Your task to perform on an android device: How much does a 3 bedroom apartment rent for in New York? Image 0: 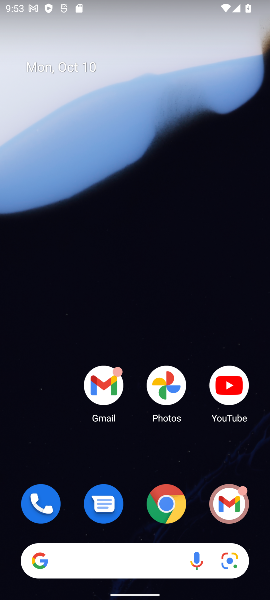
Step 0: click (165, 503)
Your task to perform on an android device: How much does a 3 bedroom apartment rent for in New York? Image 1: 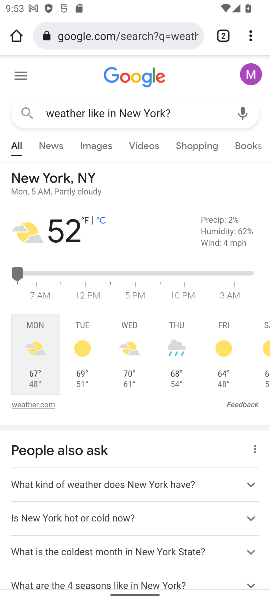
Step 1: click (97, 23)
Your task to perform on an android device: How much does a 3 bedroom apartment rent for in New York? Image 2: 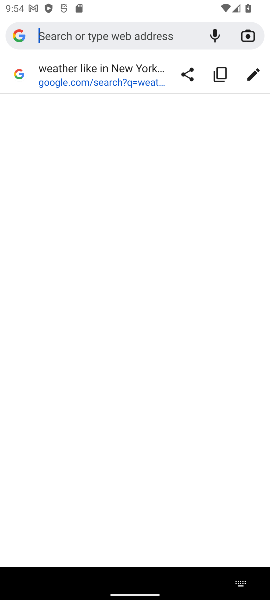
Step 2: type "How much does a 3 bedroom apartment rent for in New York?"
Your task to perform on an android device: How much does a 3 bedroom apartment rent for in New York? Image 3: 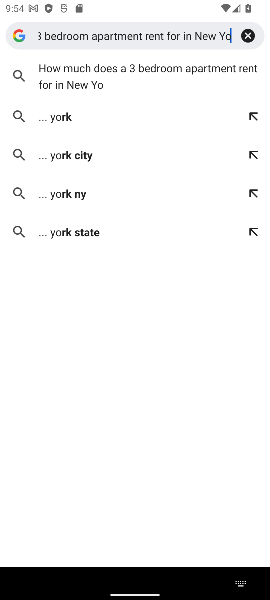
Step 3: click (82, 67)
Your task to perform on an android device: How much does a 3 bedroom apartment rent for in New York? Image 4: 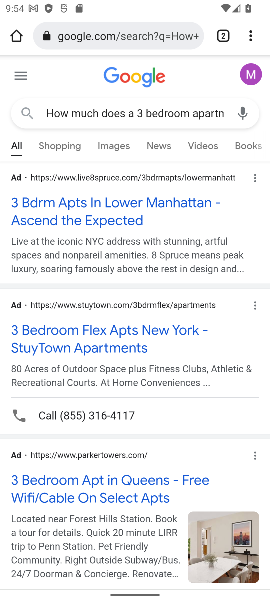
Step 4: click (122, 204)
Your task to perform on an android device: How much does a 3 bedroom apartment rent for in New York? Image 5: 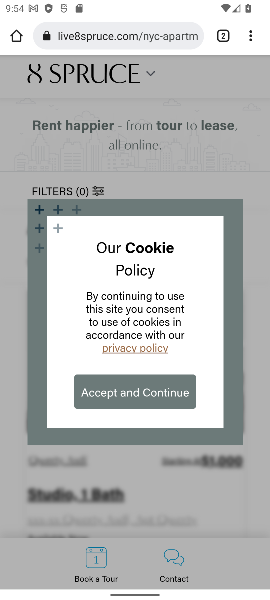
Step 5: click (121, 392)
Your task to perform on an android device: How much does a 3 bedroom apartment rent for in New York? Image 6: 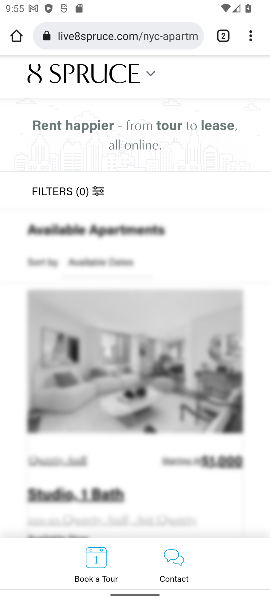
Step 6: drag from (187, 496) to (155, 118)
Your task to perform on an android device: How much does a 3 bedroom apartment rent for in New York? Image 7: 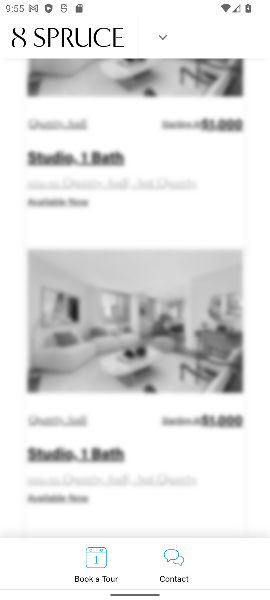
Step 7: drag from (203, 502) to (175, 100)
Your task to perform on an android device: How much does a 3 bedroom apartment rent for in New York? Image 8: 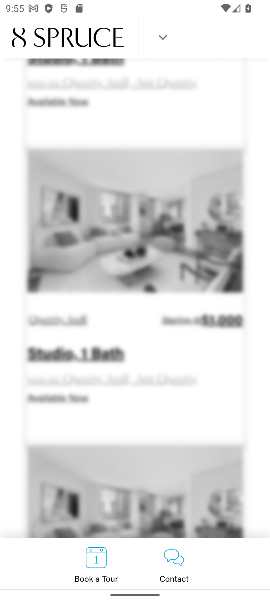
Step 8: drag from (212, 434) to (207, 112)
Your task to perform on an android device: How much does a 3 bedroom apartment rent for in New York? Image 9: 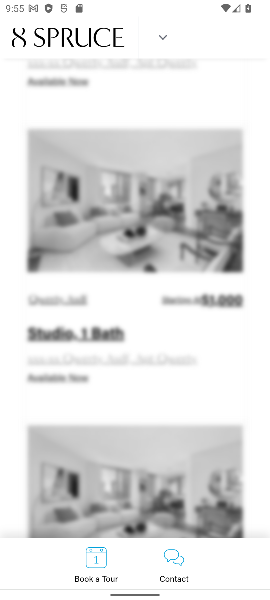
Step 9: drag from (197, 340) to (209, 89)
Your task to perform on an android device: How much does a 3 bedroom apartment rent for in New York? Image 10: 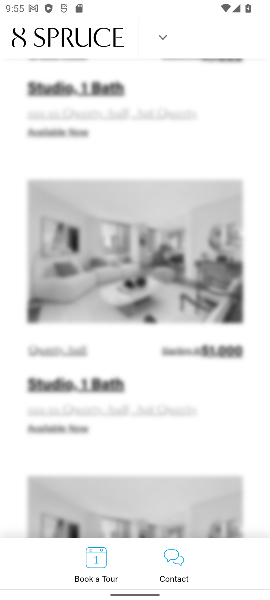
Step 10: press back button
Your task to perform on an android device: How much does a 3 bedroom apartment rent for in New York? Image 11: 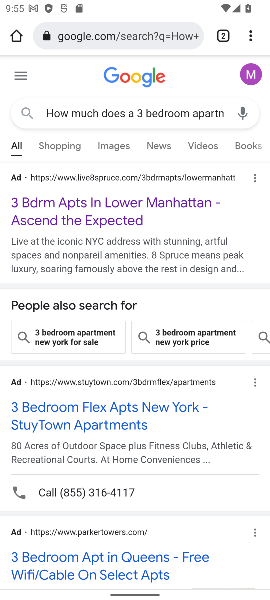
Step 11: click (46, 409)
Your task to perform on an android device: How much does a 3 bedroom apartment rent for in New York? Image 12: 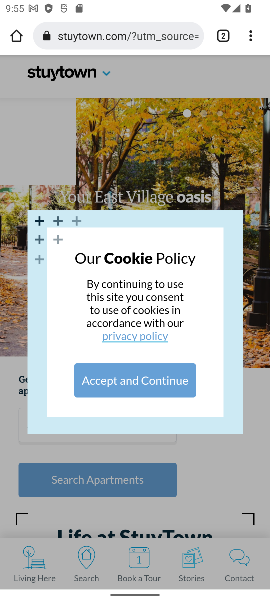
Step 12: click (120, 383)
Your task to perform on an android device: How much does a 3 bedroom apartment rent for in New York? Image 13: 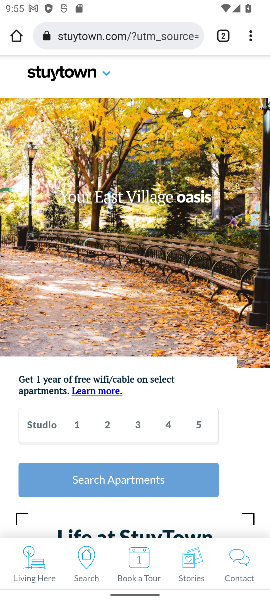
Step 13: task complete